Your task to perform on an android device: move an email to a new category in the gmail app Image 0: 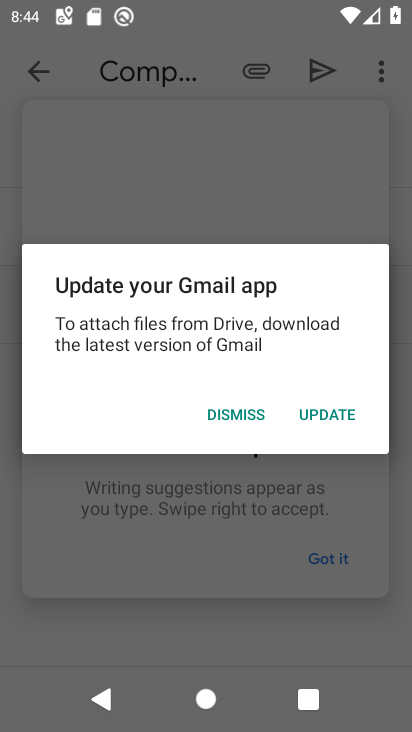
Step 0: press home button
Your task to perform on an android device: move an email to a new category in the gmail app Image 1: 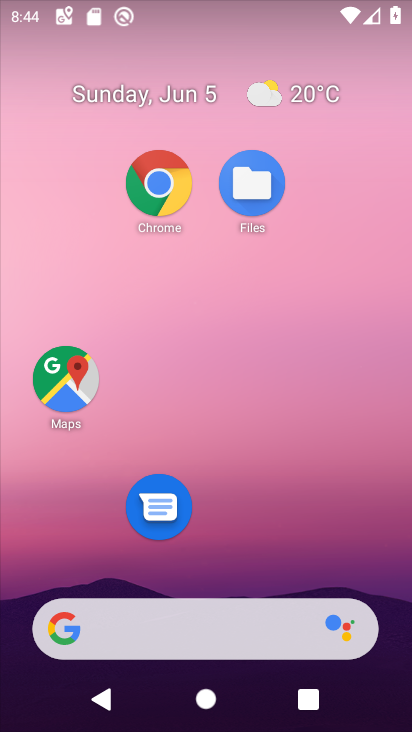
Step 1: drag from (213, 588) to (87, 10)
Your task to perform on an android device: move an email to a new category in the gmail app Image 2: 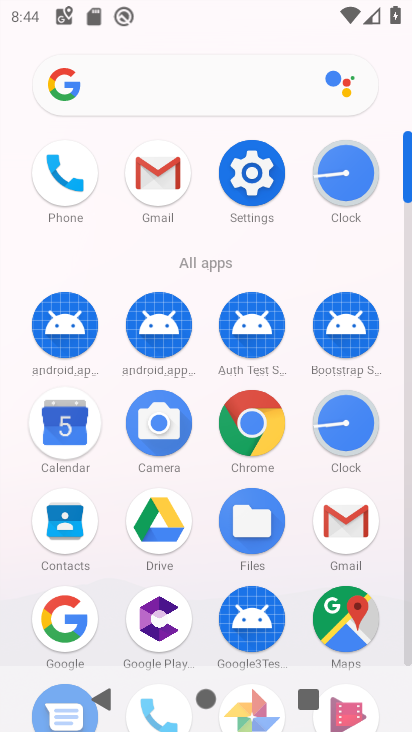
Step 2: click (347, 519)
Your task to perform on an android device: move an email to a new category in the gmail app Image 3: 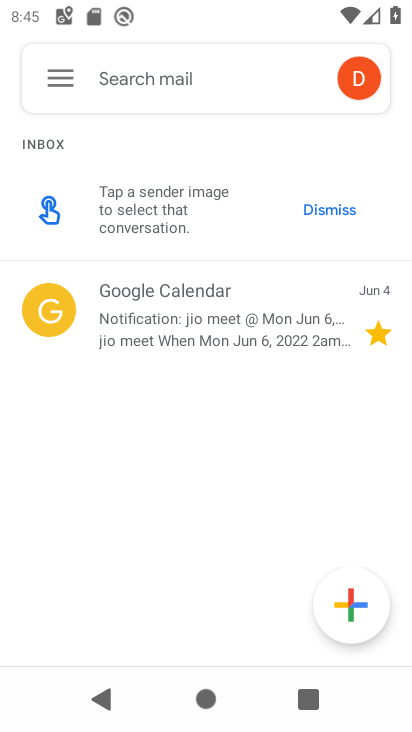
Step 3: click (334, 343)
Your task to perform on an android device: move an email to a new category in the gmail app Image 4: 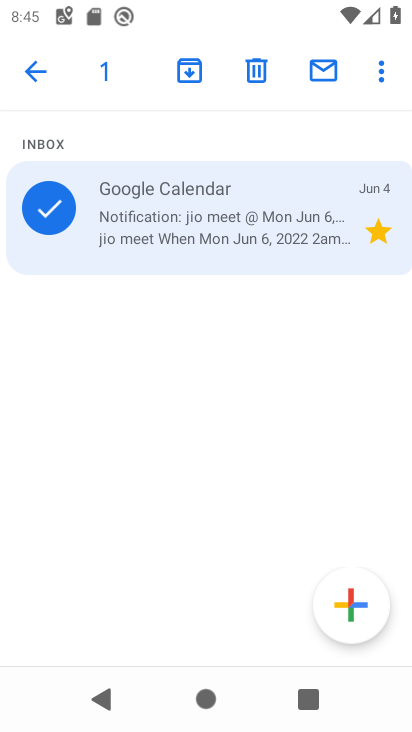
Step 4: click (374, 76)
Your task to perform on an android device: move an email to a new category in the gmail app Image 5: 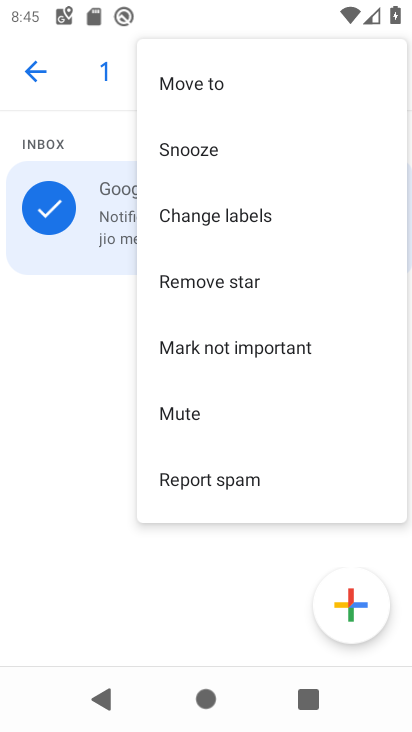
Step 5: click (217, 84)
Your task to perform on an android device: move an email to a new category in the gmail app Image 6: 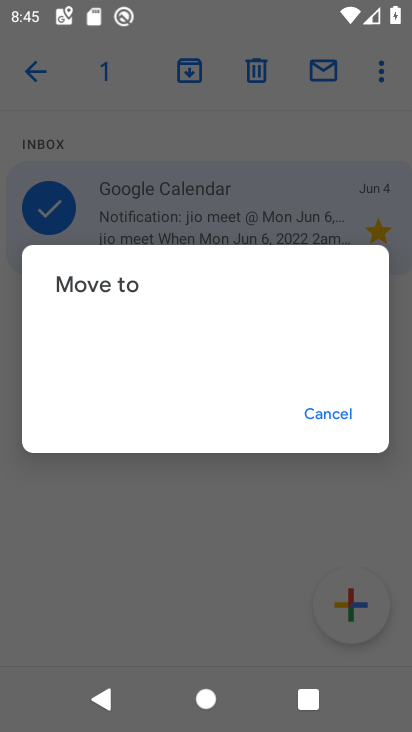
Step 6: task complete